Your task to perform on an android device: Open Reddit.com Image 0: 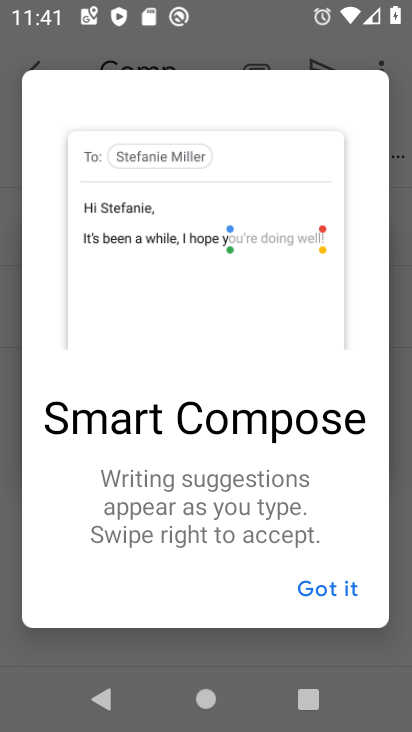
Step 0: press home button
Your task to perform on an android device: Open Reddit.com Image 1: 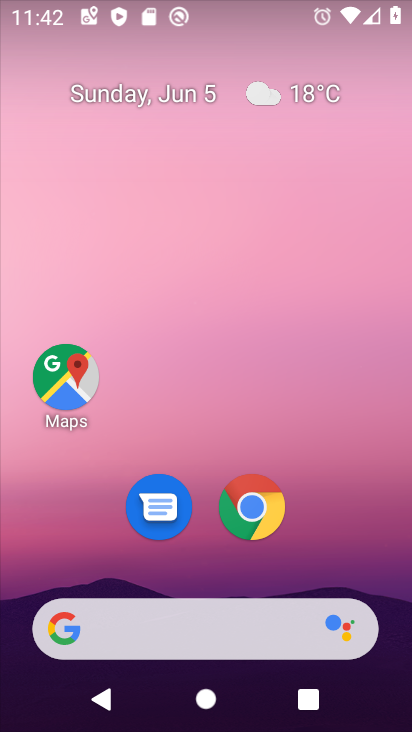
Step 1: click (250, 509)
Your task to perform on an android device: Open Reddit.com Image 2: 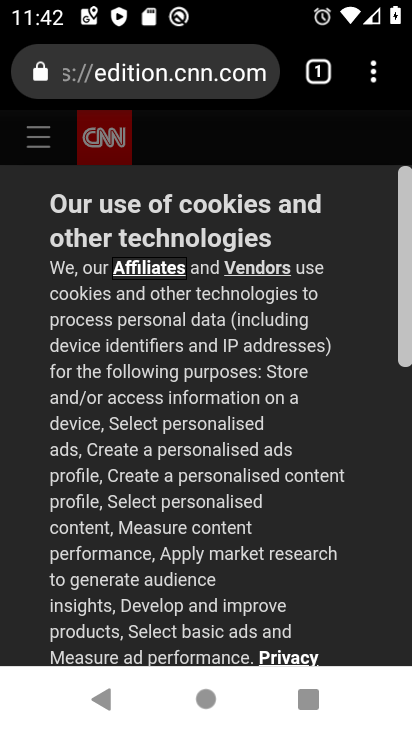
Step 2: click (376, 81)
Your task to perform on an android device: Open Reddit.com Image 3: 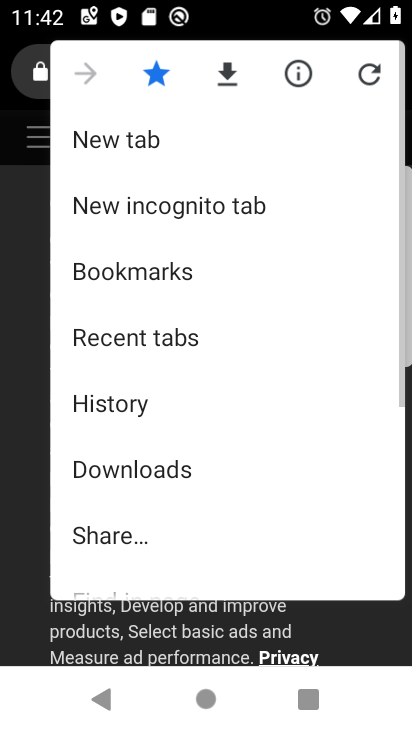
Step 3: click (104, 136)
Your task to perform on an android device: Open Reddit.com Image 4: 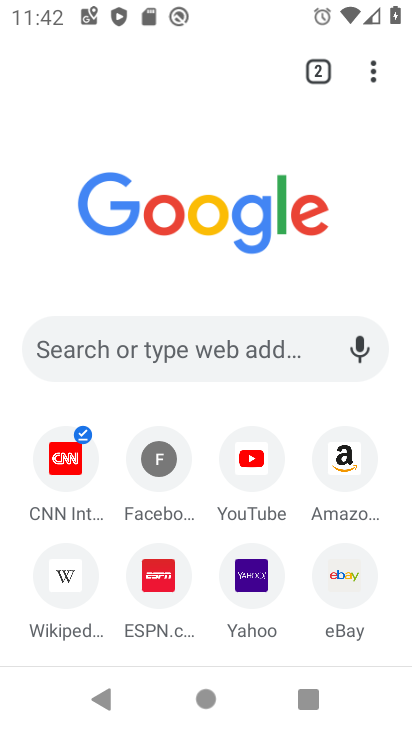
Step 4: click (209, 349)
Your task to perform on an android device: Open Reddit.com Image 5: 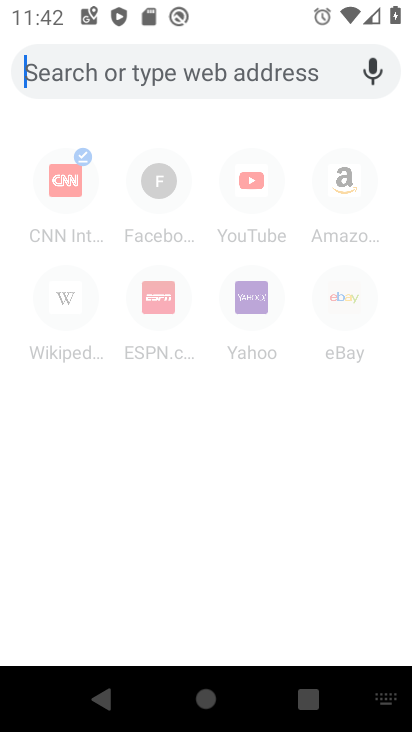
Step 5: type "Reddit.com"
Your task to perform on an android device: Open Reddit.com Image 6: 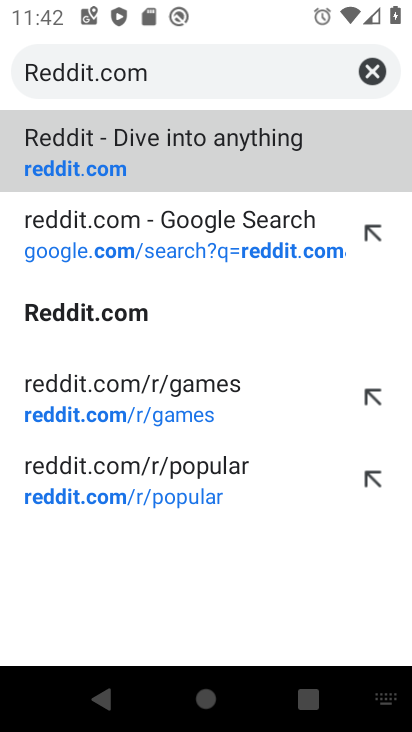
Step 6: click (155, 156)
Your task to perform on an android device: Open Reddit.com Image 7: 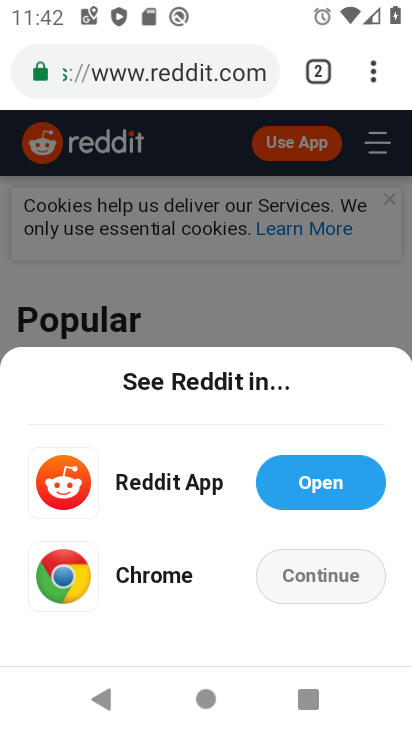
Step 7: task complete